Your task to perform on an android device: Open the Play Movies app and select the watchlist tab. Image 0: 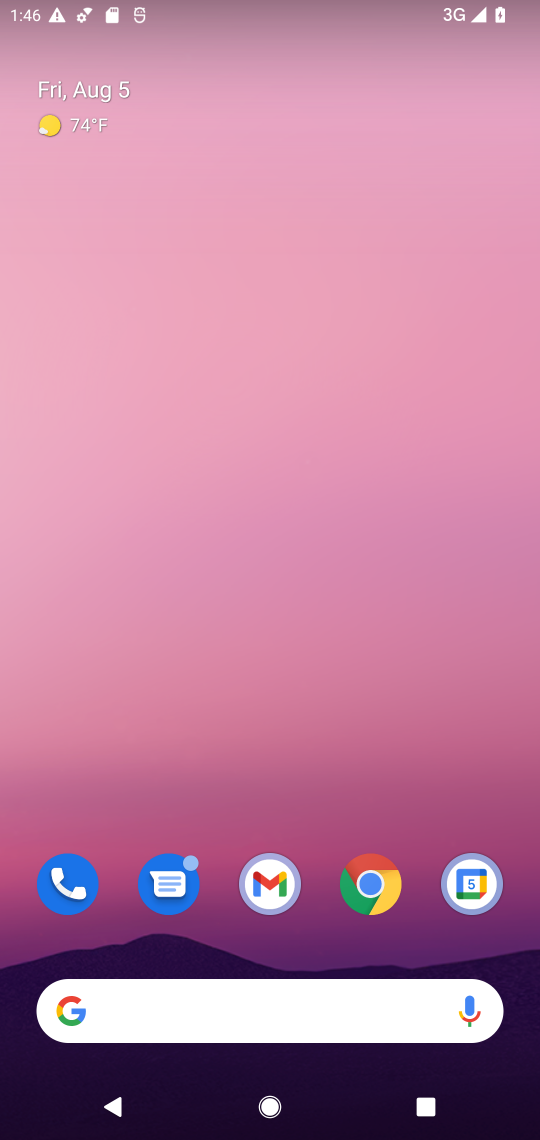
Step 0: drag from (412, 842) to (199, 114)
Your task to perform on an android device: Open the Play Movies app and select the watchlist tab. Image 1: 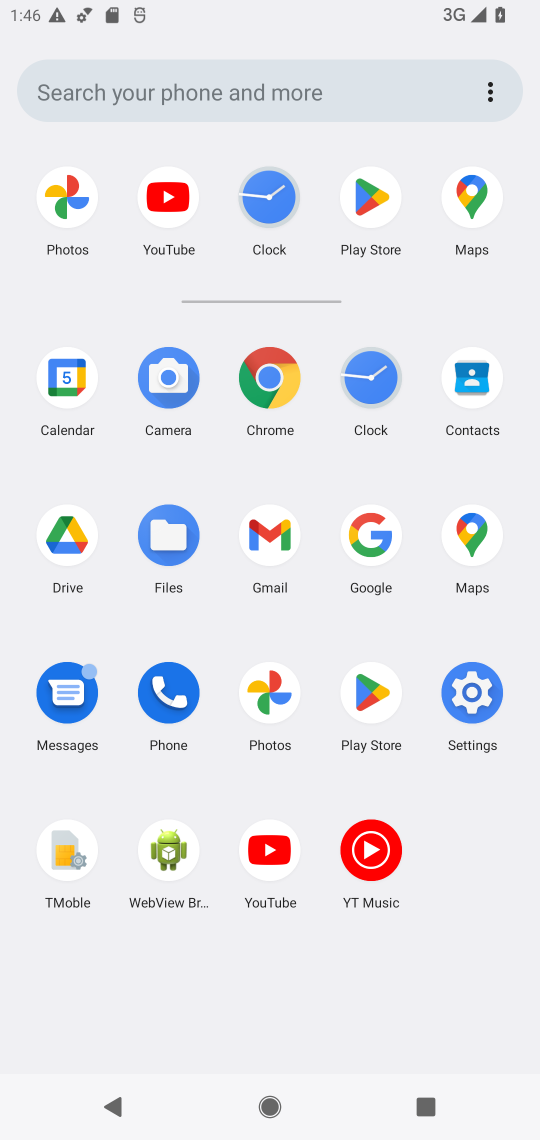
Step 1: task complete